Your task to perform on an android device: Open Chrome and go to settings Image 0: 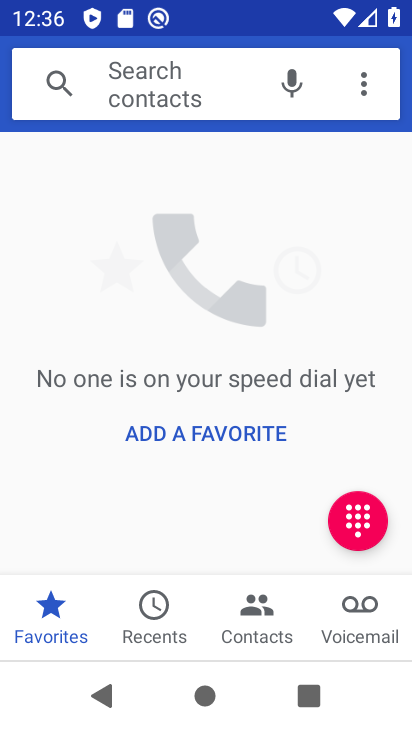
Step 0: press home button
Your task to perform on an android device: Open Chrome and go to settings Image 1: 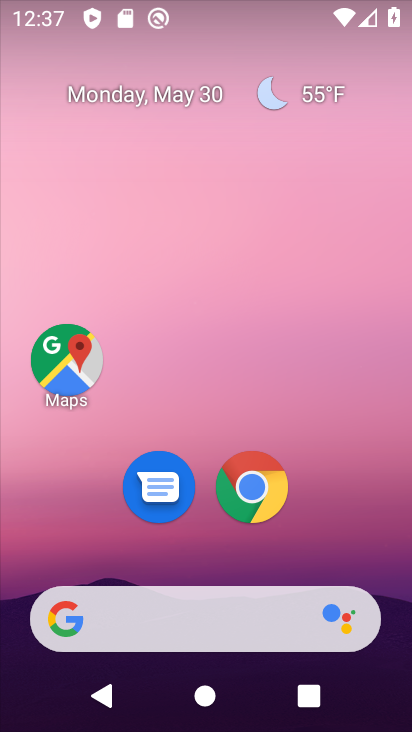
Step 1: click (252, 502)
Your task to perform on an android device: Open Chrome and go to settings Image 2: 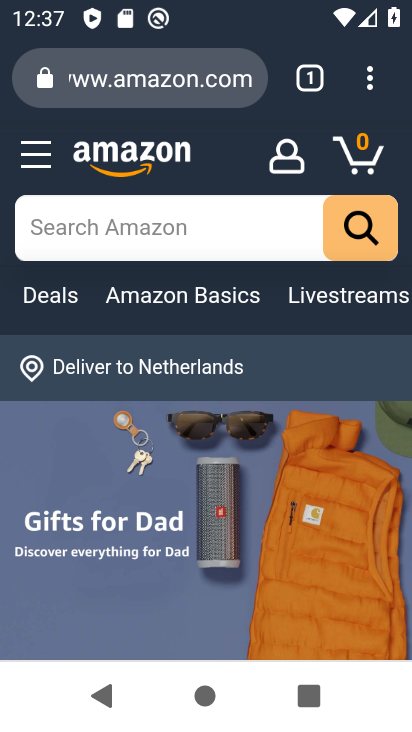
Step 2: click (366, 83)
Your task to perform on an android device: Open Chrome and go to settings Image 3: 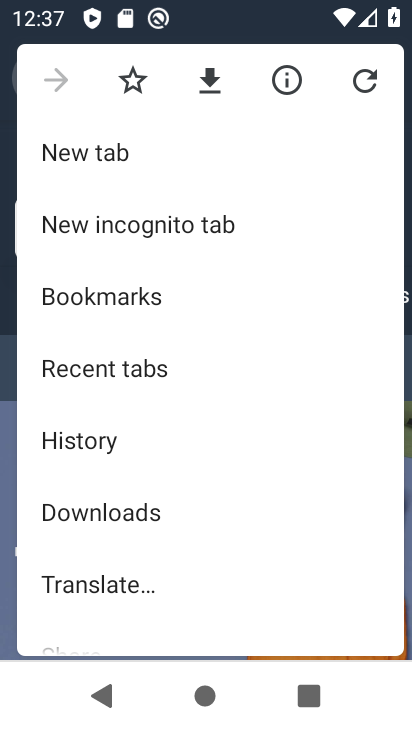
Step 3: drag from (97, 535) to (46, 29)
Your task to perform on an android device: Open Chrome and go to settings Image 4: 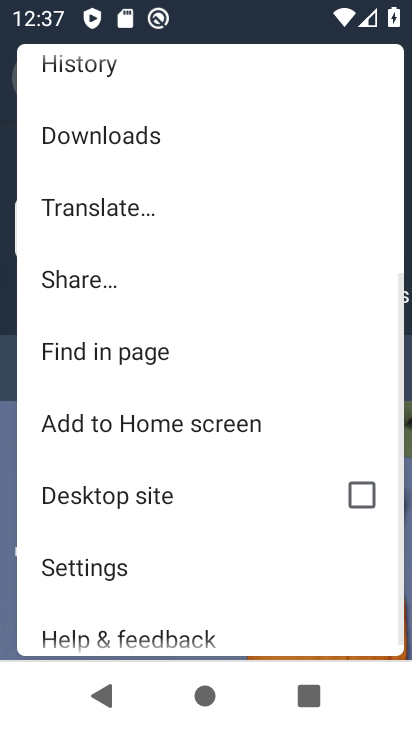
Step 4: click (84, 547)
Your task to perform on an android device: Open Chrome and go to settings Image 5: 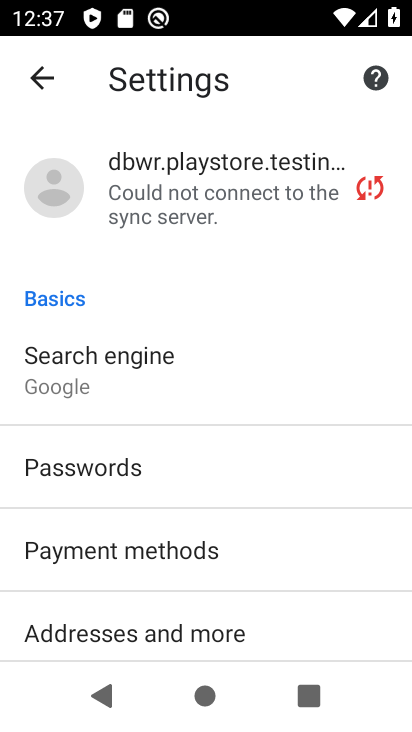
Step 5: task complete